Your task to perform on an android device: Turn on the flashlight Image 0: 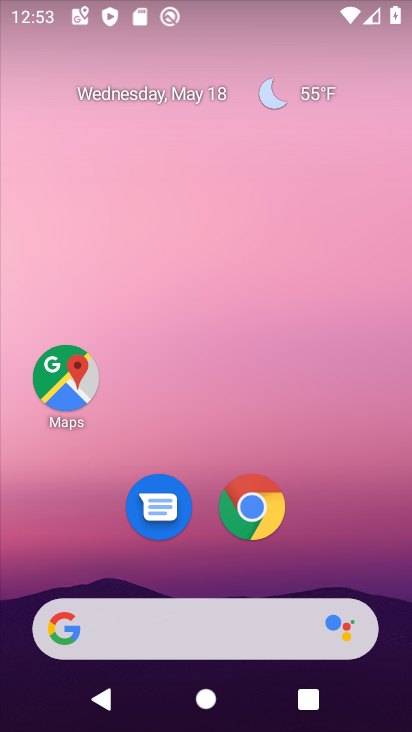
Step 0: drag from (235, 13) to (332, 506)
Your task to perform on an android device: Turn on the flashlight Image 1: 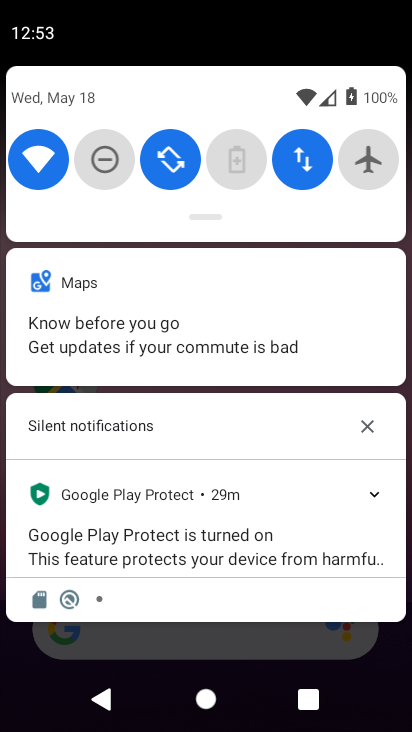
Step 1: drag from (199, 221) to (253, 472)
Your task to perform on an android device: Turn on the flashlight Image 2: 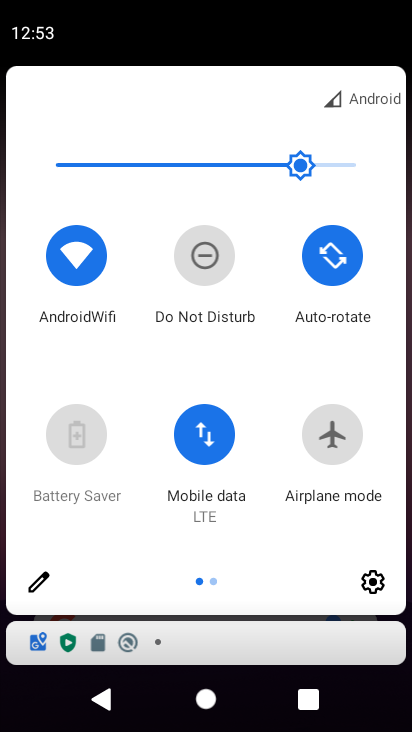
Step 2: click (27, 585)
Your task to perform on an android device: Turn on the flashlight Image 3: 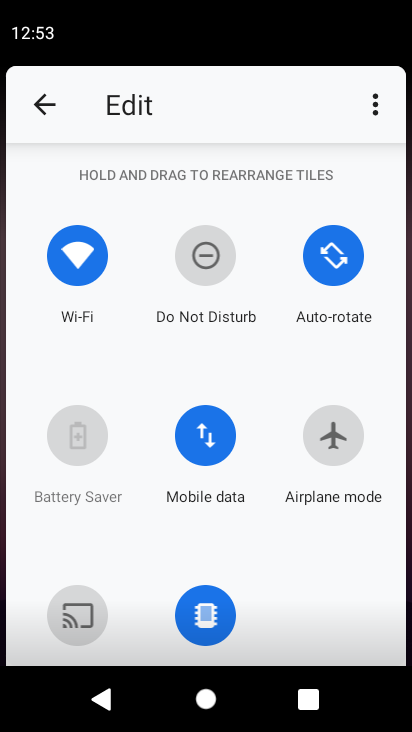
Step 3: task complete